Your task to perform on an android device: turn notification dots off Image 0: 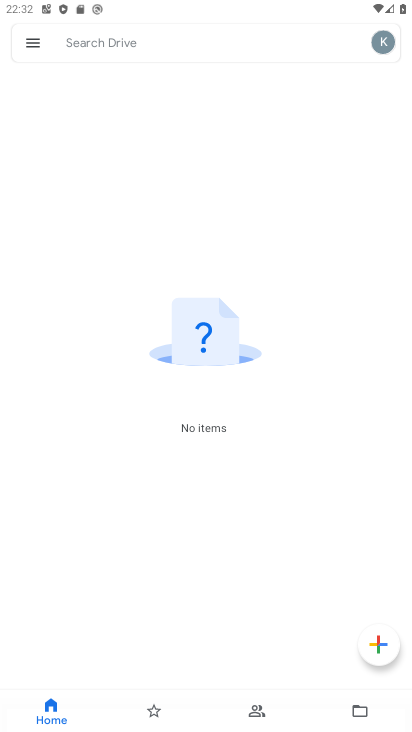
Step 0: press home button
Your task to perform on an android device: turn notification dots off Image 1: 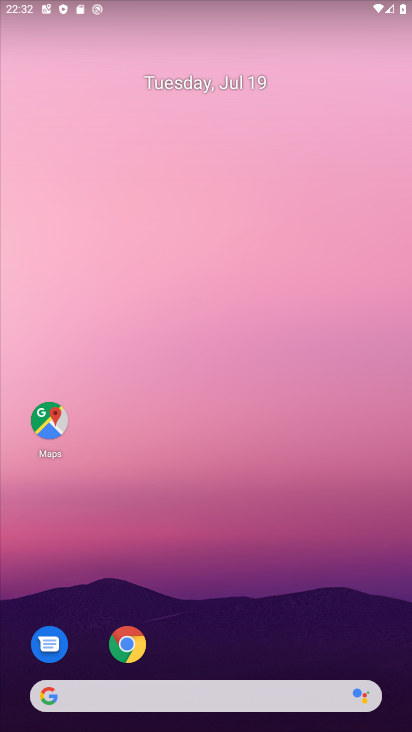
Step 1: drag from (223, 720) to (223, 183)
Your task to perform on an android device: turn notification dots off Image 2: 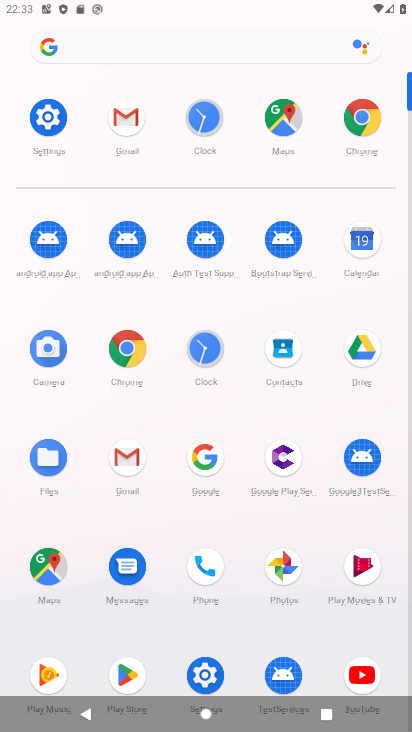
Step 2: click (36, 114)
Your task to perform on an android device: turn notification dots off Image 3: 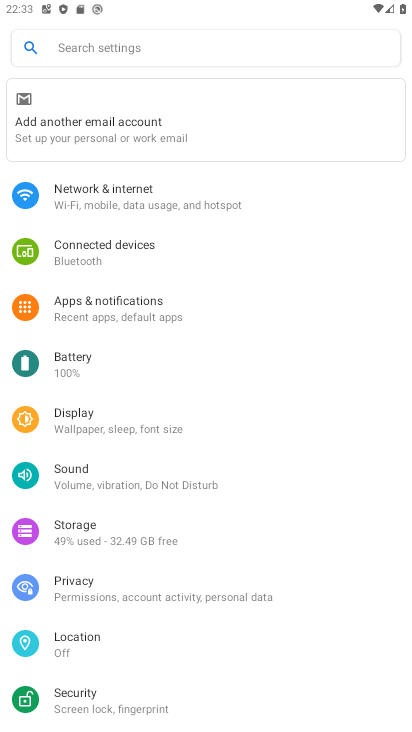
Step 3: click (126, 309)
Your task to perform on an android device: turn notification dots off Image 4: 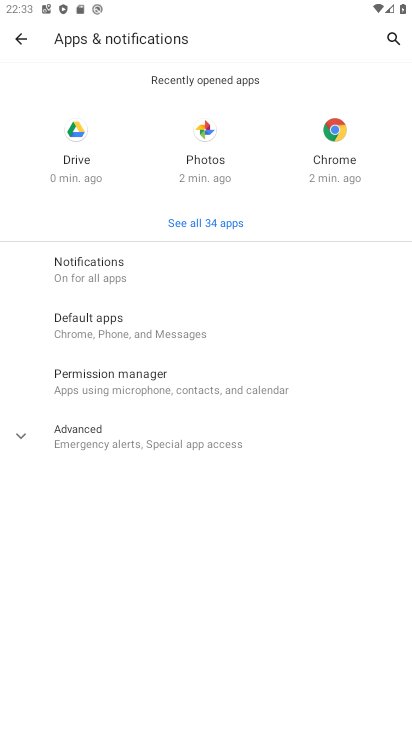
Step 4: click (92, 276)
Your task to perform on an android device: turn notification dots off Image 5: 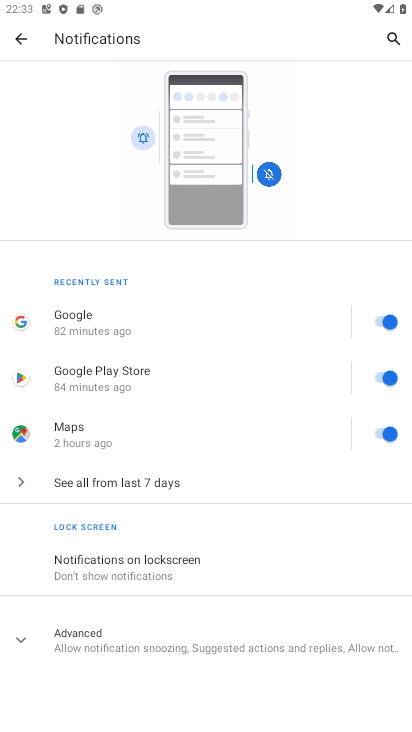
Step 5: click (72, 631)
Your task to perform on an android device: turn notification dots off Image 6: 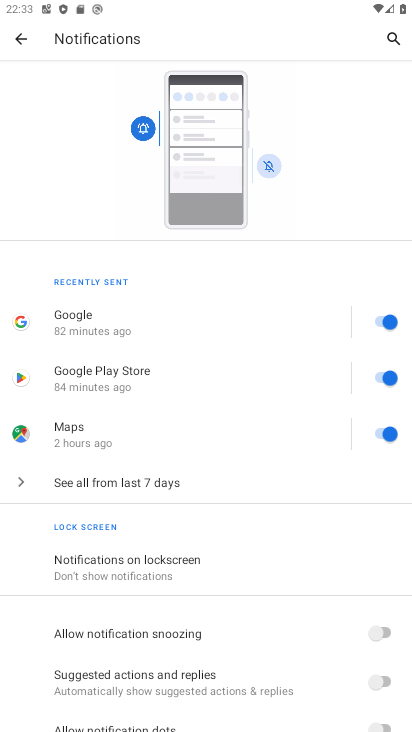
Step 6: task complete